Your task to perform on an android device: turn on notifications settings in the gmail app Image 0: 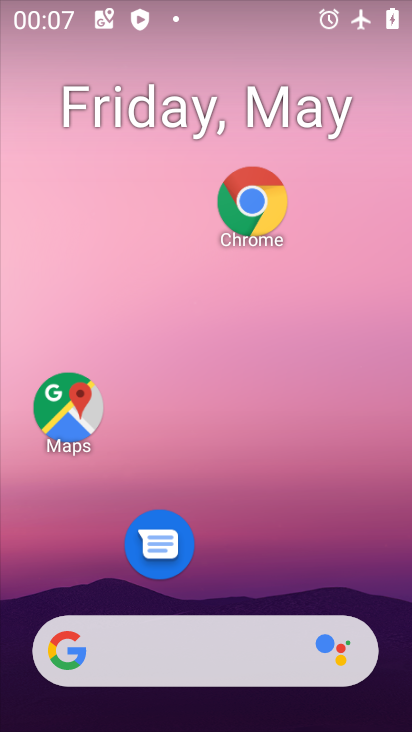
Step 0: drag from (238, 581) to (246, 65)
Your task to perform on an android device: turn on notifications settings in the gmail app Image 1: 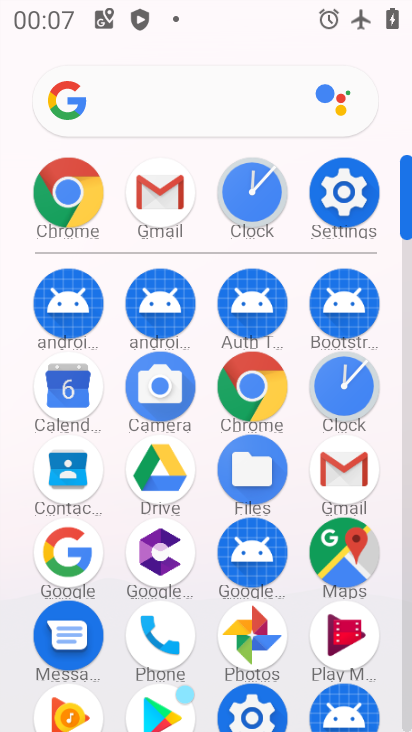
Step 1: click (343, 466)
Your task to perform on an android device: turn on notifications settings in the gmail app Image 2: 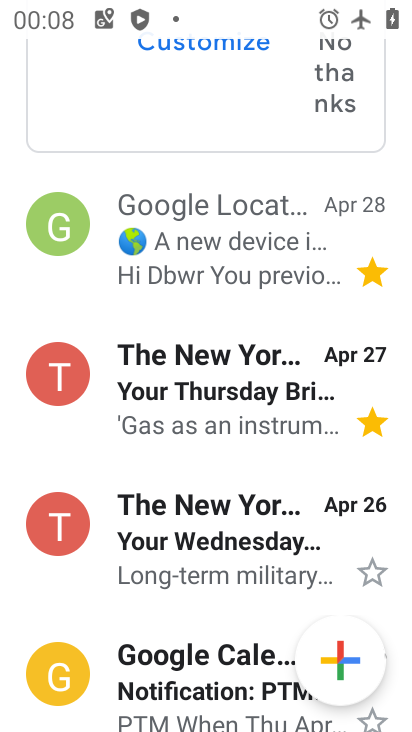
Step 2: drag from (237, 475) to (245, 578)
Your task to perform on an android device: turn on notifications settings in the gmail app Image 3: 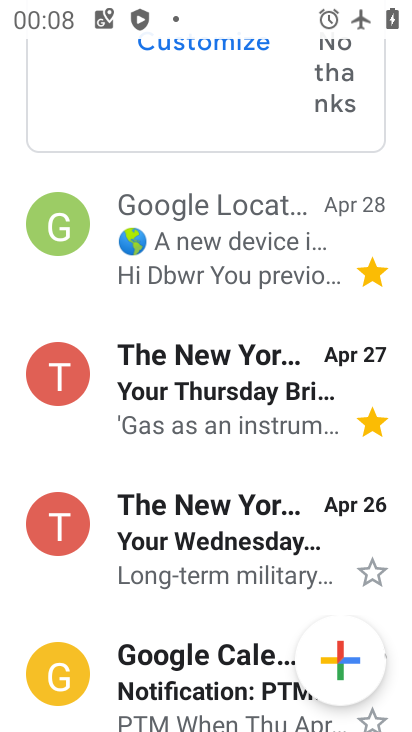
Step 3: drag from (95, 175) to (134, 670)
Your task to perform on an android device: turn on notifications settings in the gmail app Image 4: 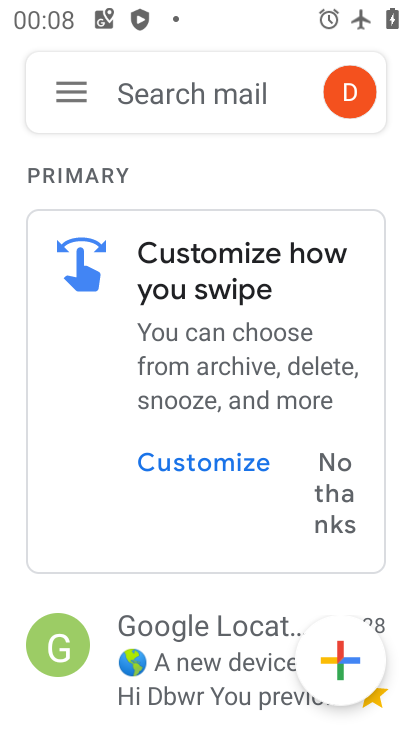
Step 4: click (69, 91)
Your task to perform on an android device: turn on notifications settings in the gmail app Image 5: 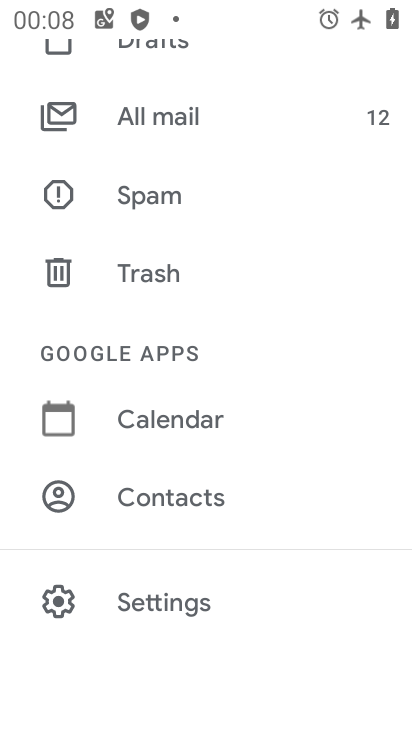
Step 5: click (104, 597)
Your task to perform on an android device: turn on notifications settings in the gmail app Image 6: 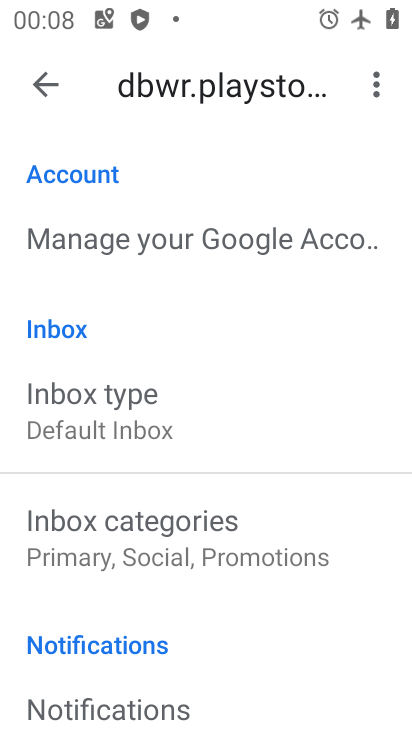
Step 6: click (52, 86)
Your task to perform on an android device: turn on notifications settings in the gmail app Image 7: 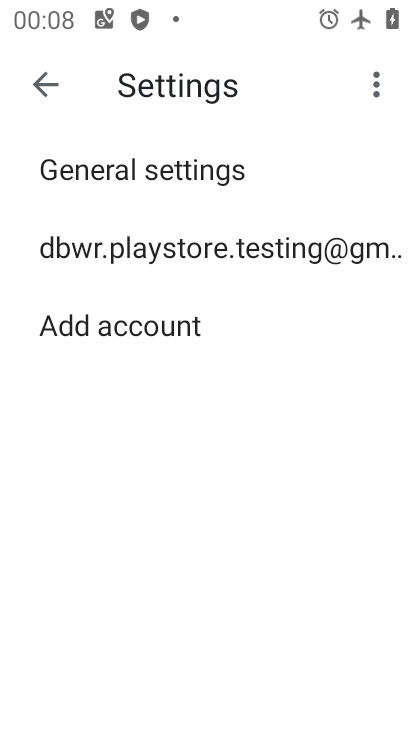
Step 7: click (232, 179)
Your task to perform on an android device: turn on notifications settings in the gmail app Image 8: 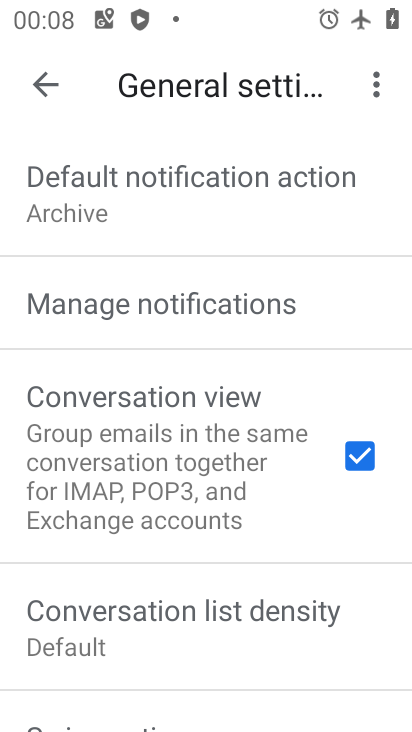
Step 8: click (269, 312)
Your task to perform on an android device: turn on notifications settings in the gmail app Image 9: 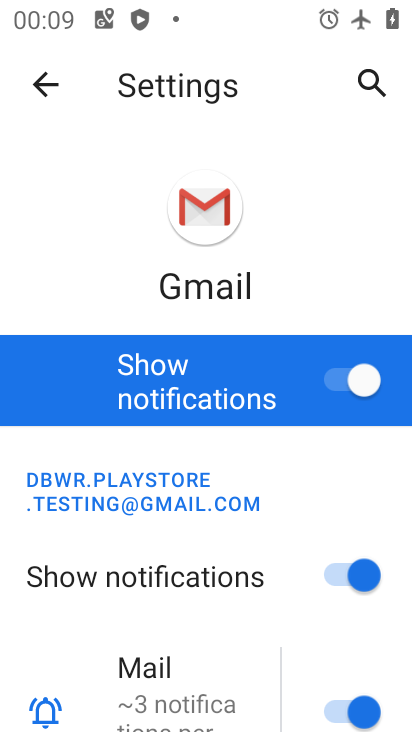
Step 9: task complete